Your task to perform on an android device: Show me recent news Image 0: 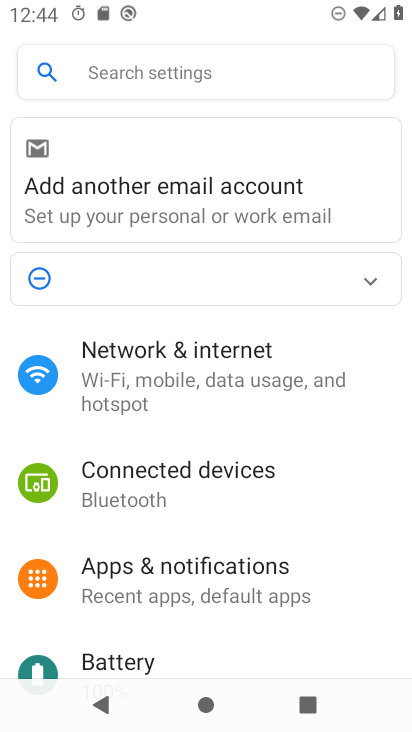
Step 0: press home button
Your task to perform on an android device: Show me recent news Image 1: 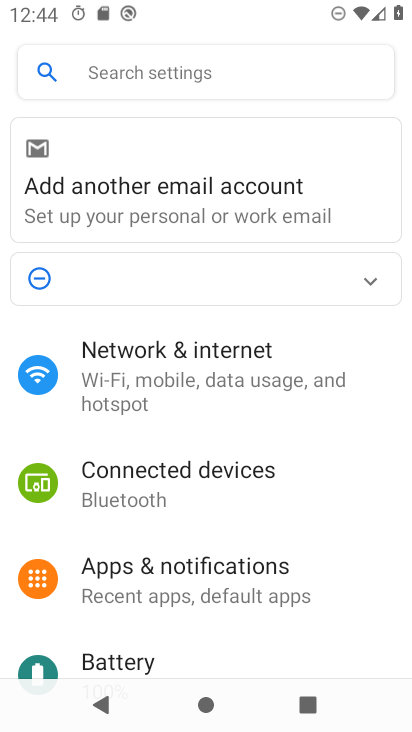
Step 1: press home button
Your task to perform on an android device: Show me recent news Image 2: 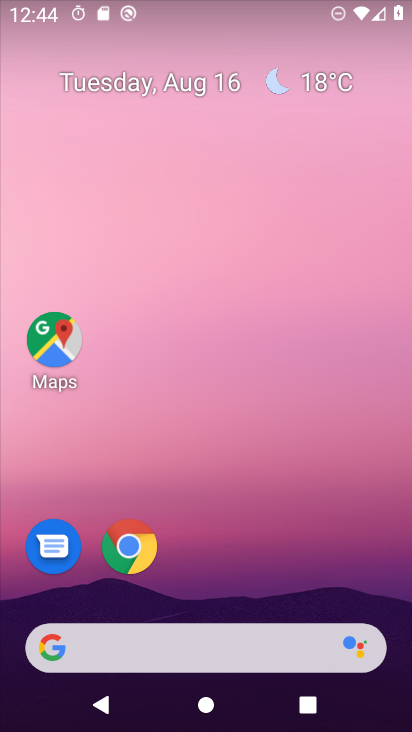
Step 2: drag from (224, 608) to (176, 58)
Your task to perform on an android device: Show me recent news Image 3: 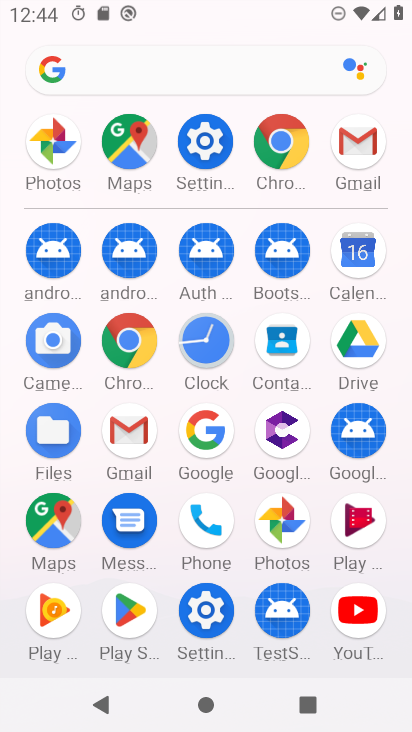
Step 3: click (201, 428)
Your task to perform on an android device: Show me recent news Image 4: 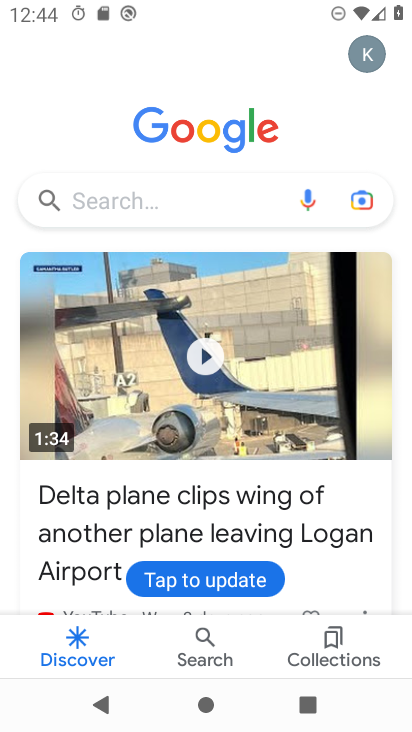
Step 4: task complete